Your task to perform on an android device: Open CNN.com Image 0: 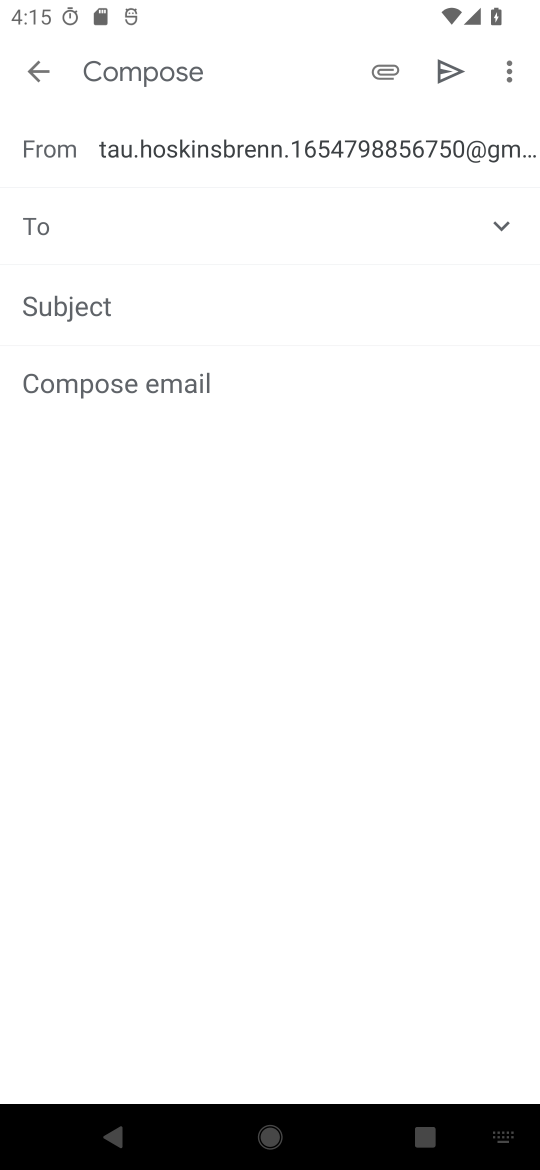
Step 0: press home button
Your task to perform on an android device: Open CNN.com Image 1: 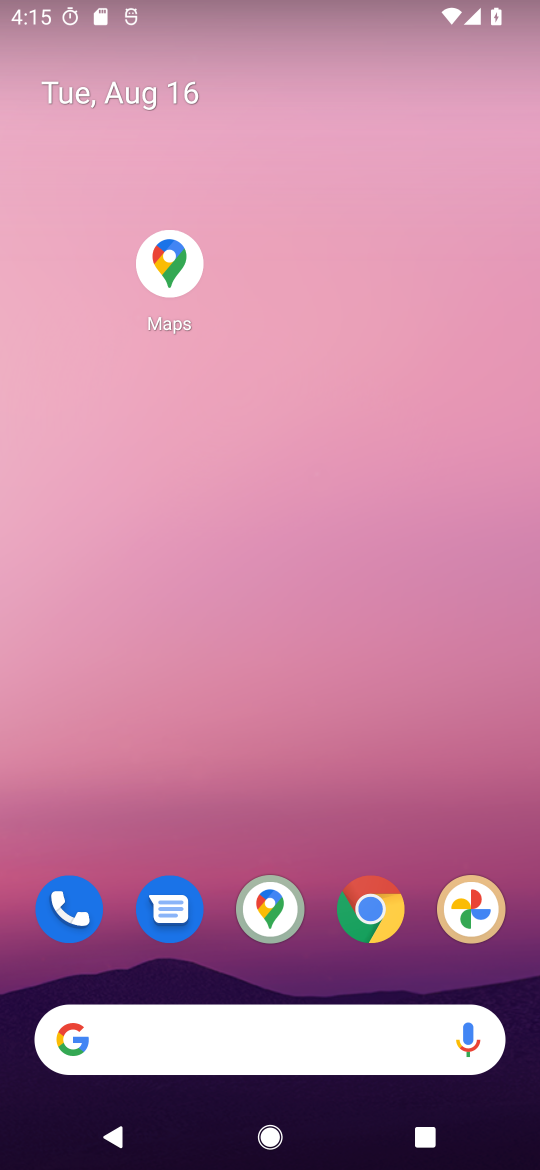
Step 1: drag from (294, 963) to (309, 438)
Your task to perform on an android device: Open CNN.com Image 2: 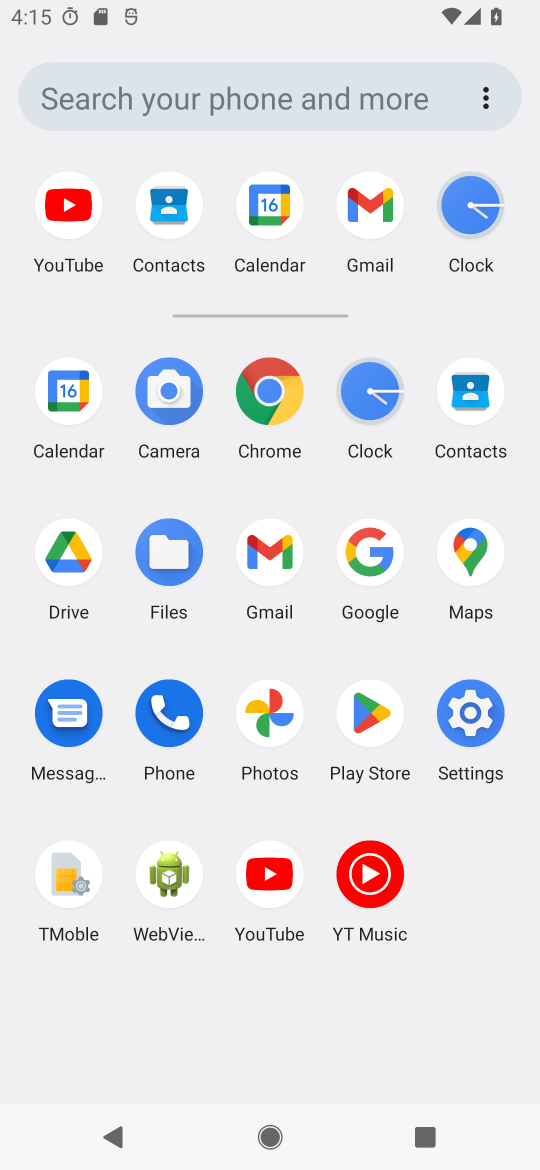
Step 2: click (432, 617)
Your task to perform on an android device: Open CNN.com Image 3: 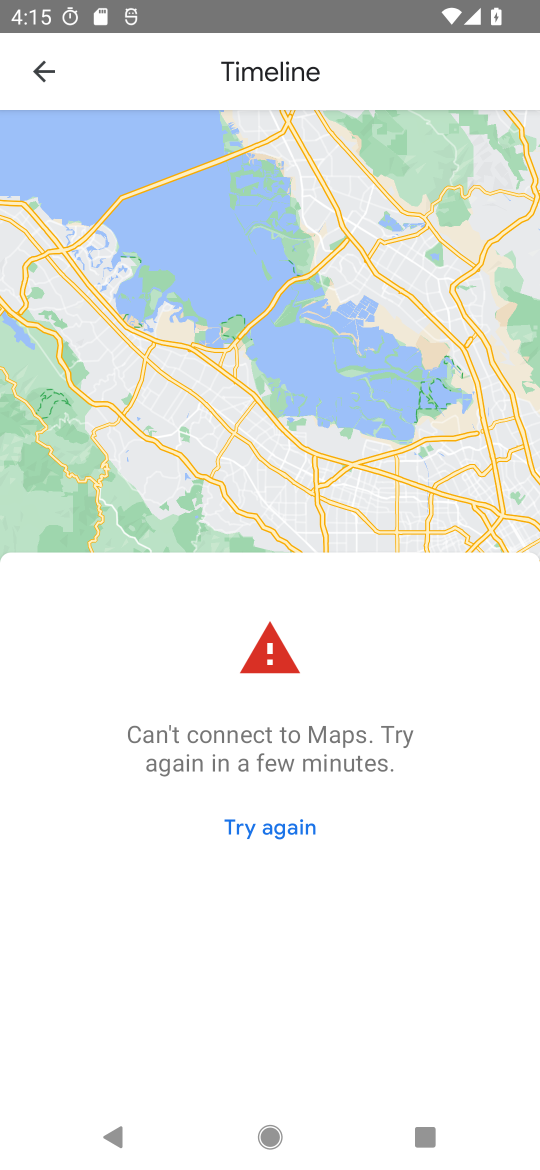
Step 3: press back button
Your task to perform on an android device: Open CNN.com Image 4: 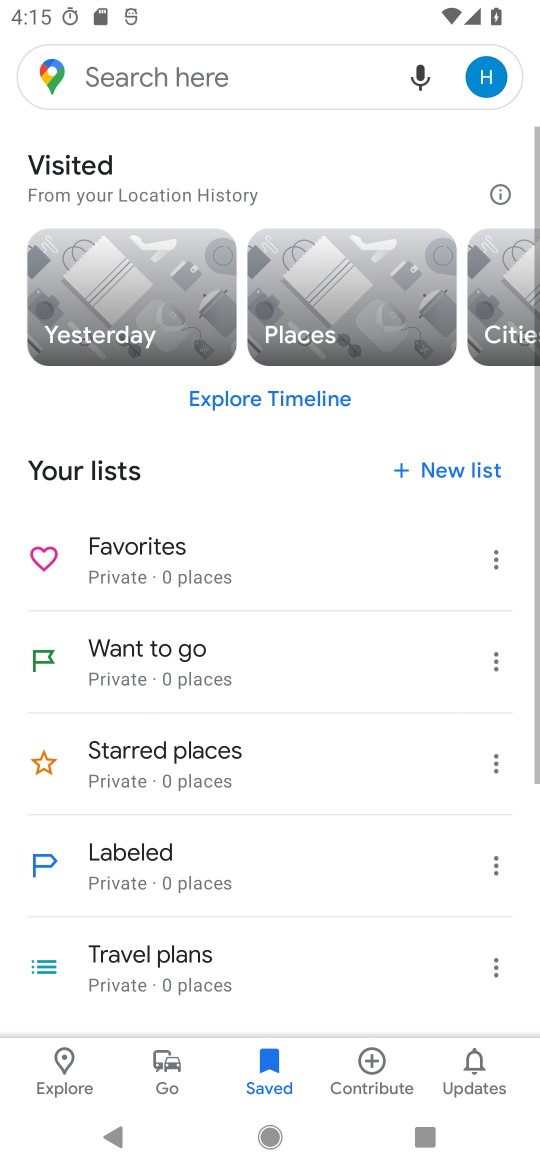
Step 4: press home button
Your task to perform on an android device: Open CNN.com Image 5: 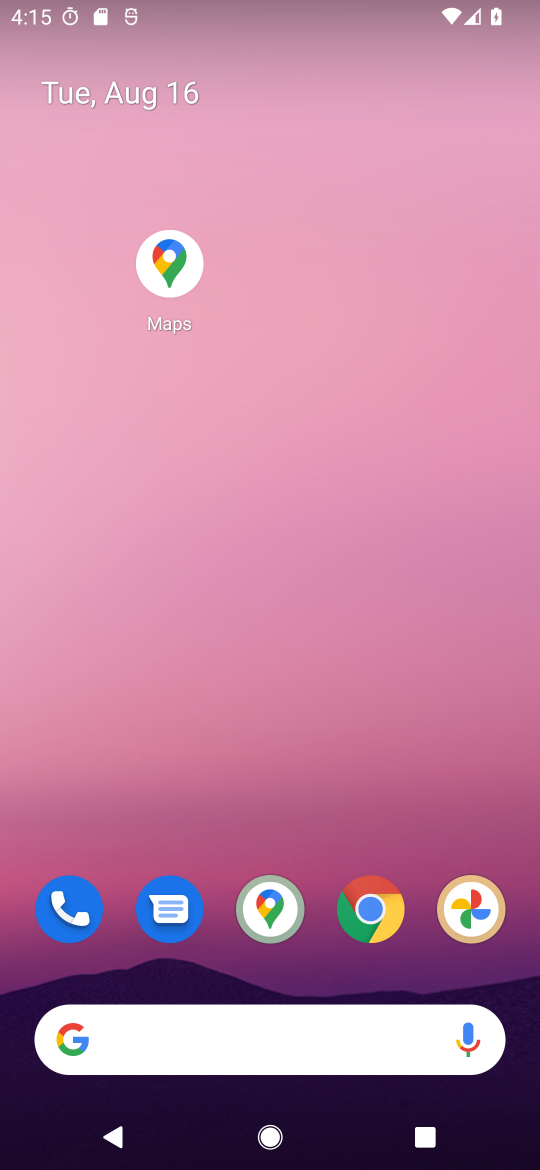
Step 5: click (366, 907)
Your task to perform on an android device: Open CNN.com Image 6: 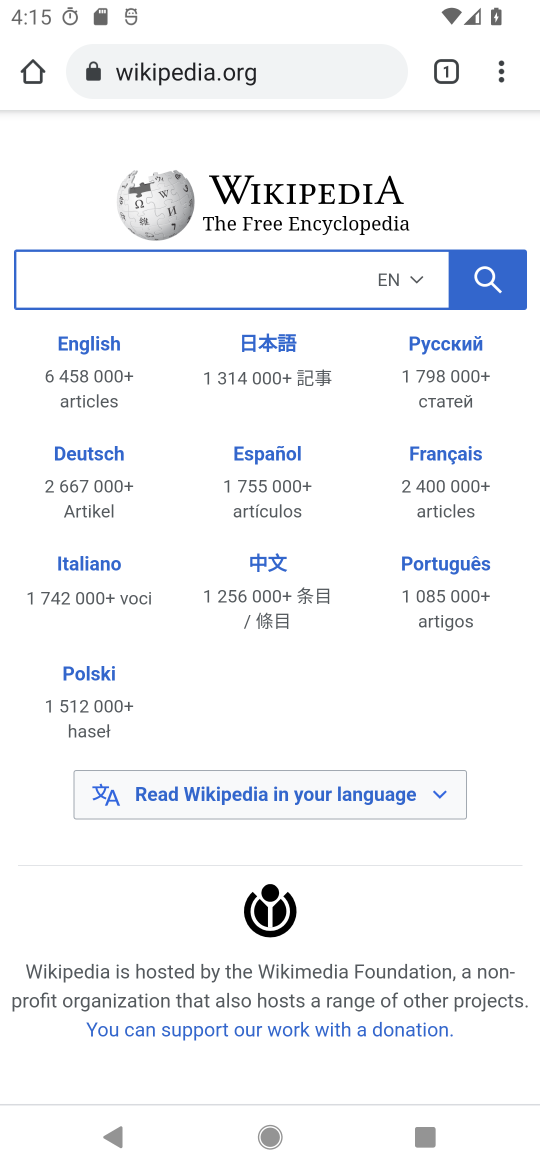
Step 6: click (248, 68)
Your task to perform on an android device: Open CNN.com Image 7: 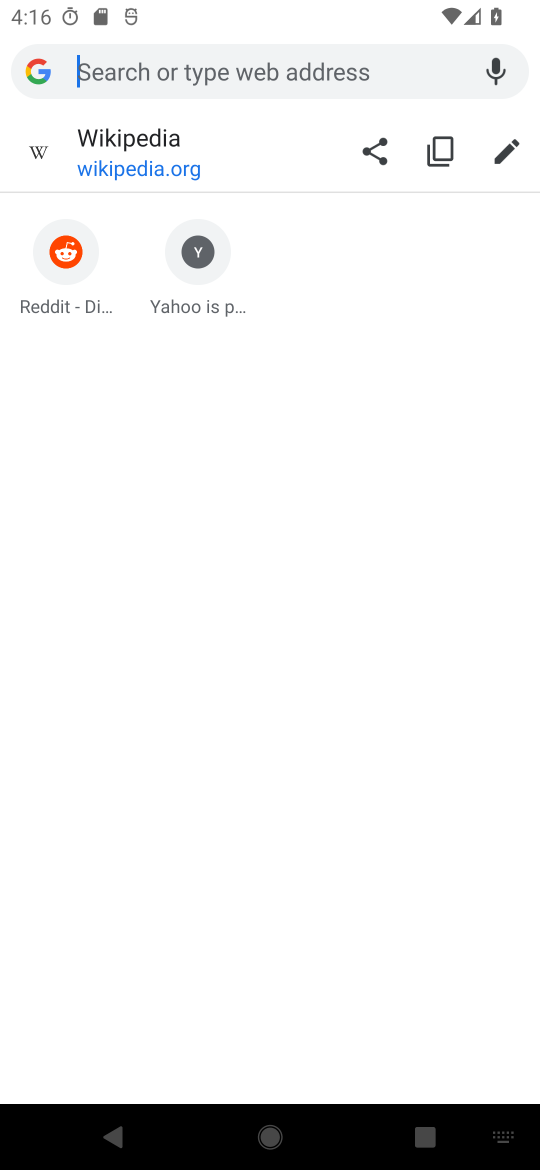
Step 7: type "www.cnn.com"
Your task to perform on an android device: Open CNN.com Image 8: 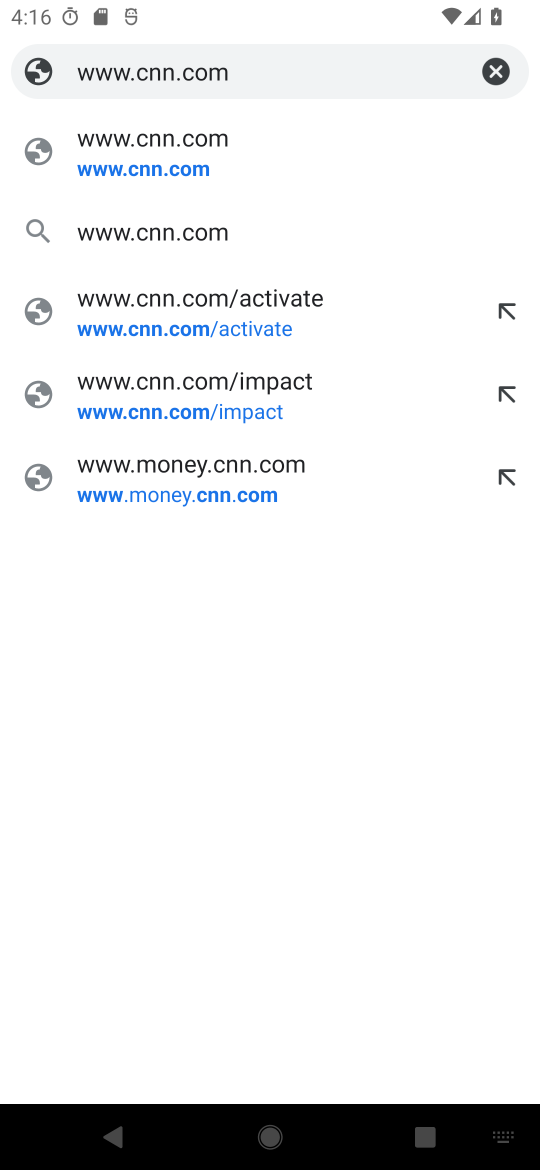
Step 8: click (159, 158)
Your task to perform on an android device: Open CNN.com Image 9: 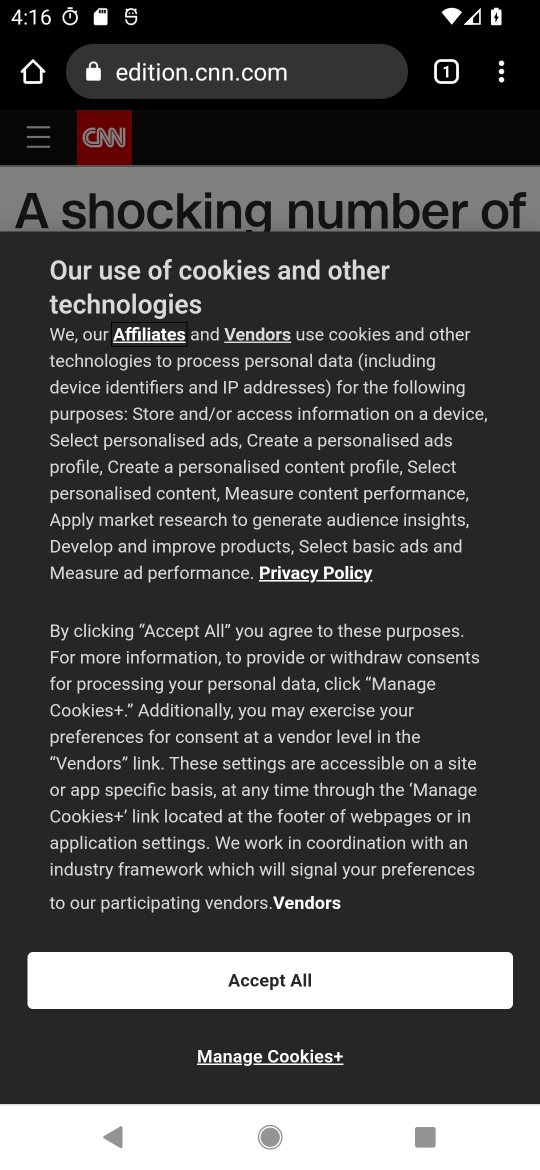
Step 9: task complete